Your task to perform on an android device: Open Reddit.com Image 0: 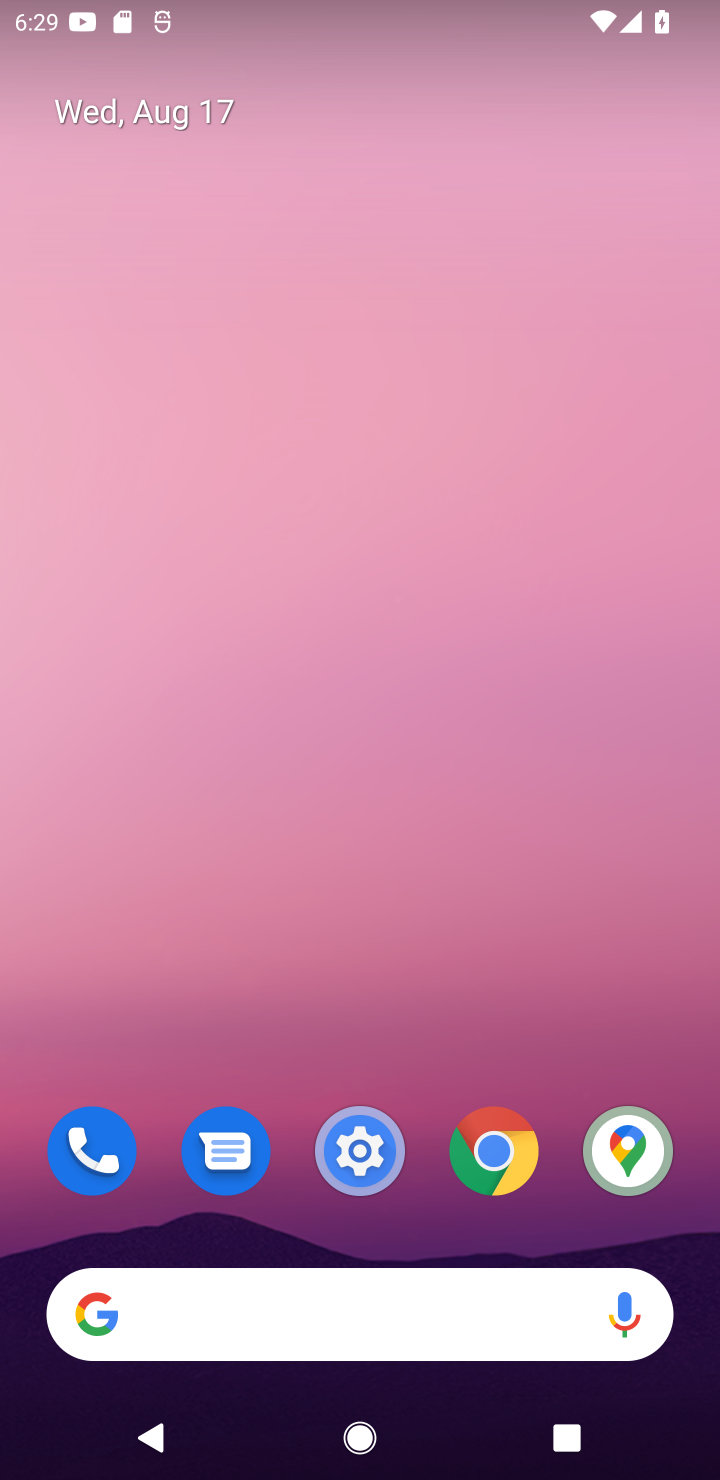
Step 0: click (469, 1174)
Your task to perform on an android device: Open Reddit.com Image 1: 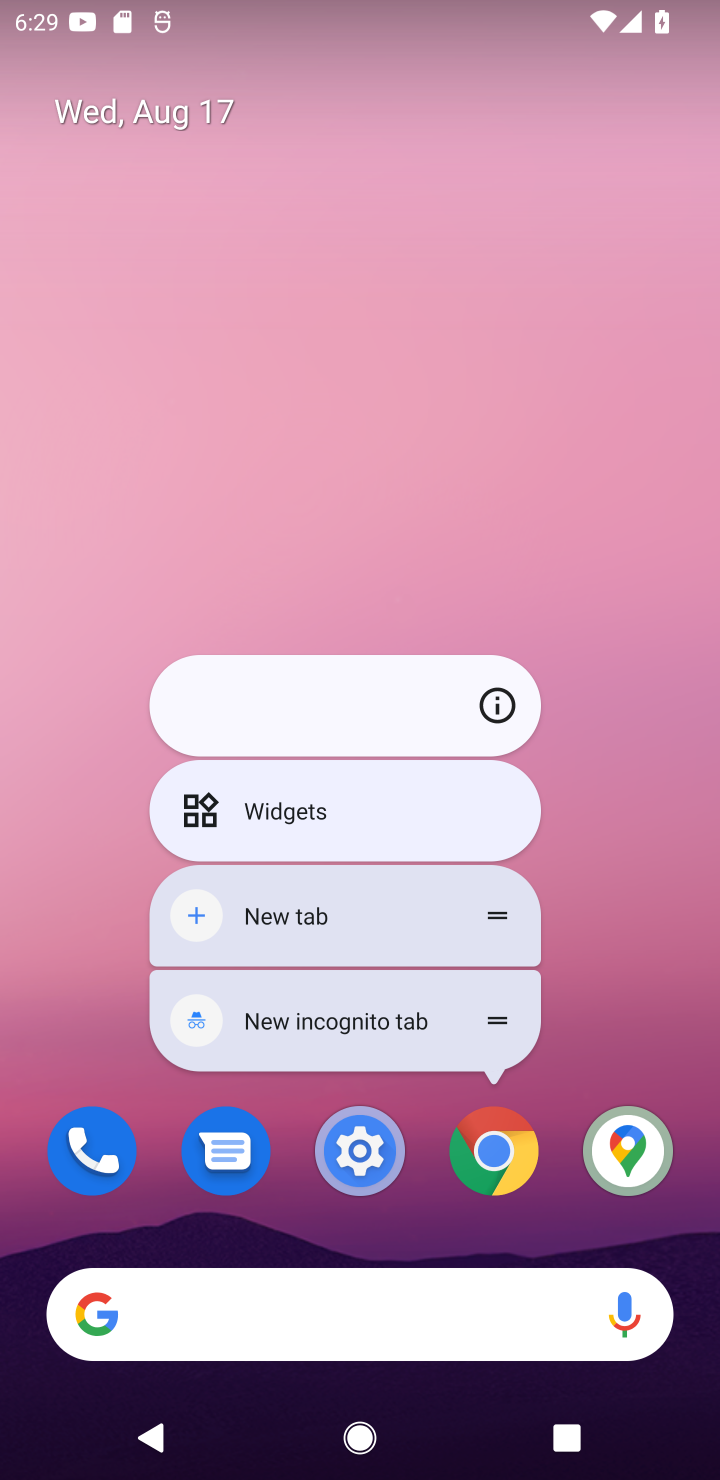
Step 1: click (469, 1174)
Your task to perform on an android device: Open Reddit.com Image 2: 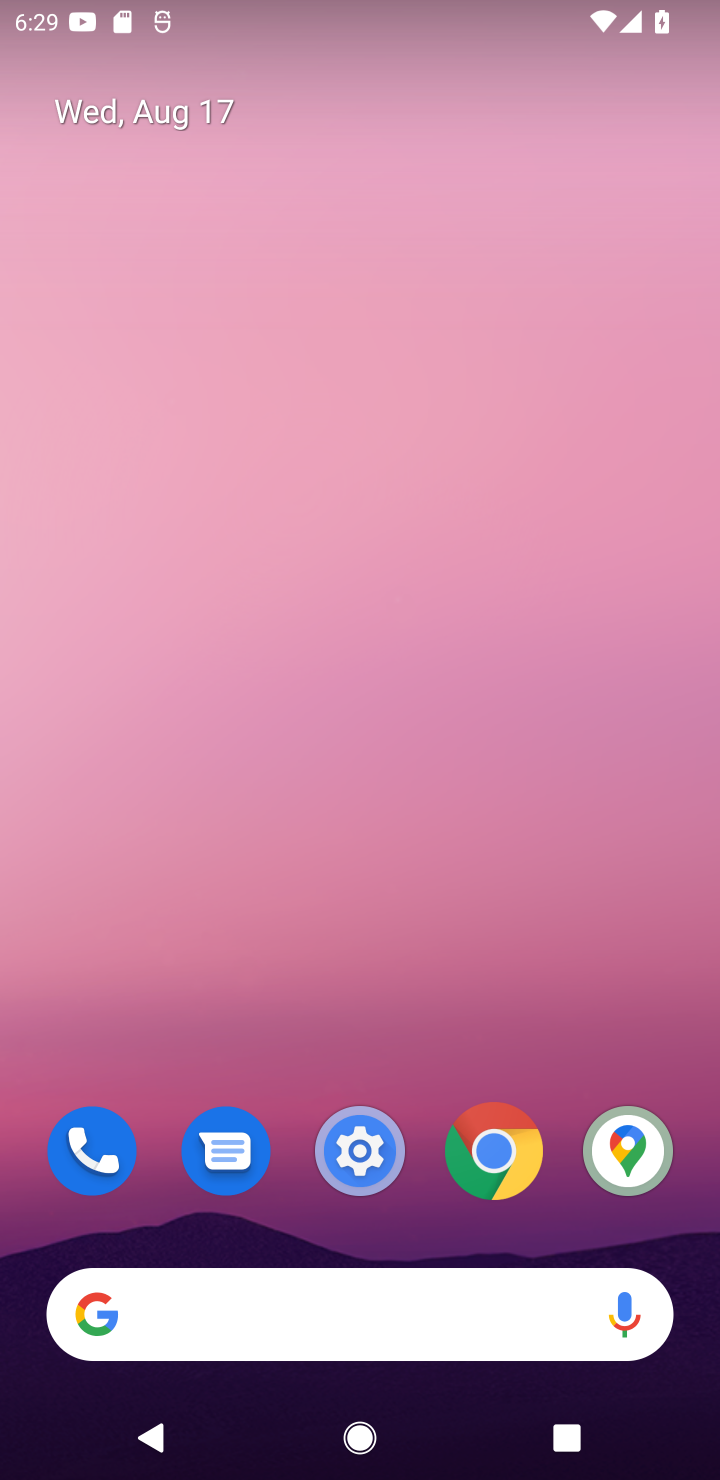
Step 2: click (477, 1173)
Your task to perform on an android device: Open Reddit.com Image 3: 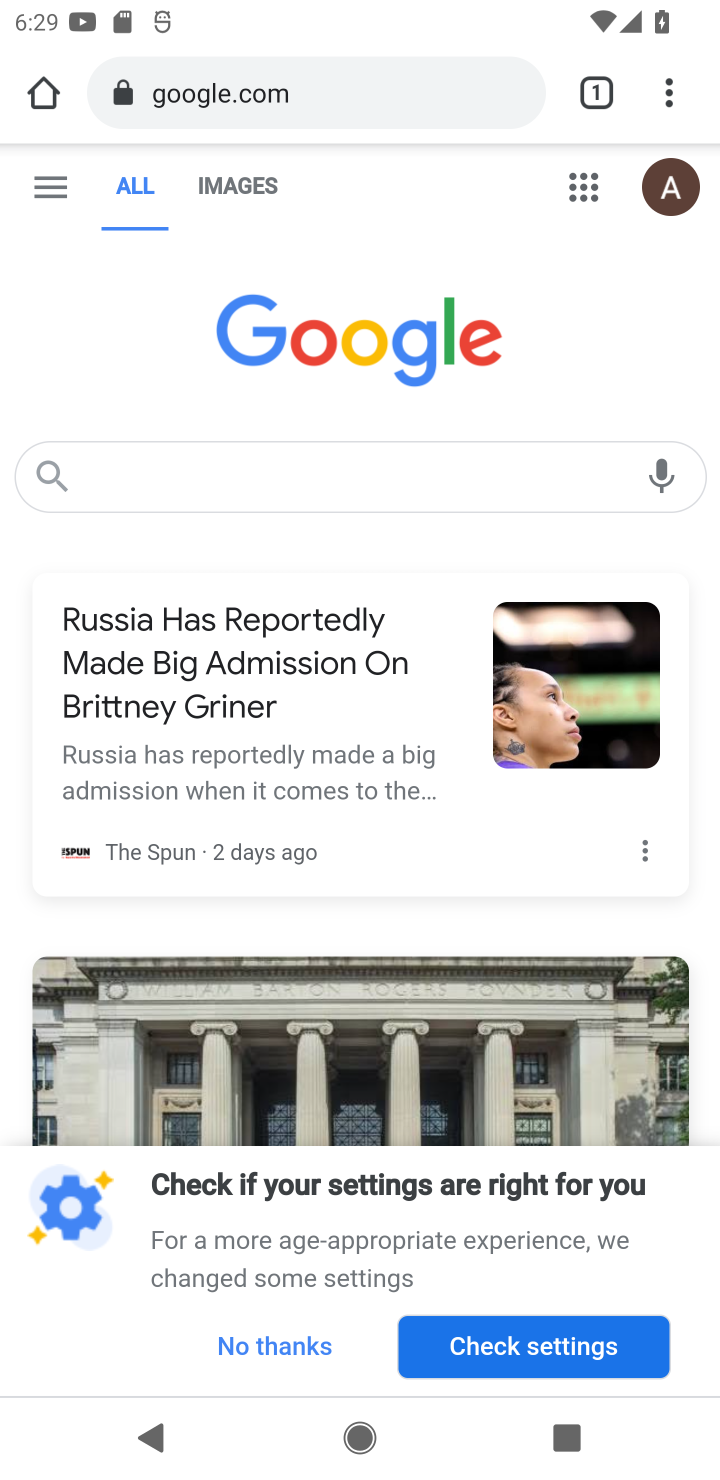
Step 3: click (296, 100)
Your task to perform on an android device: Open Reddit.com Image 4: 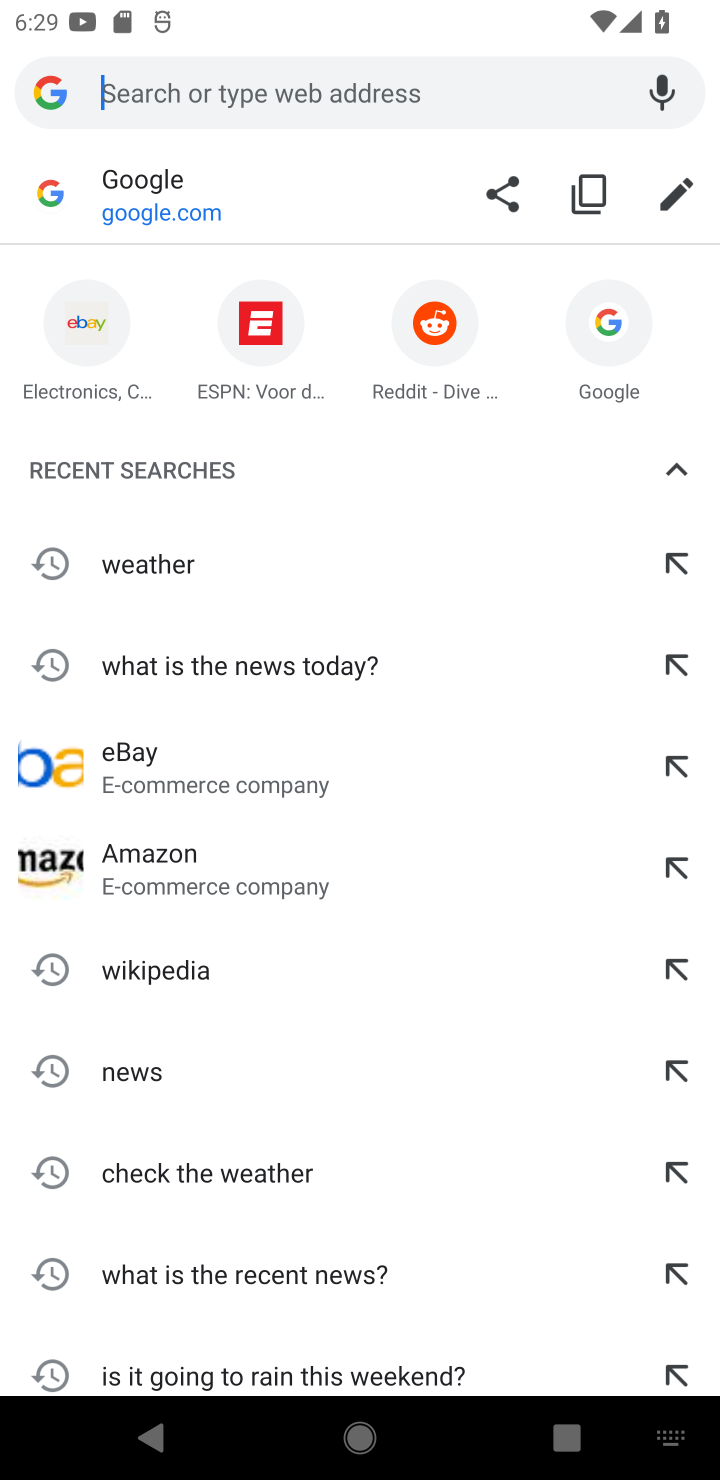
Step 4: type "reddit.com"
Your task to perform on an android device: Open Reddit.com Image 5: 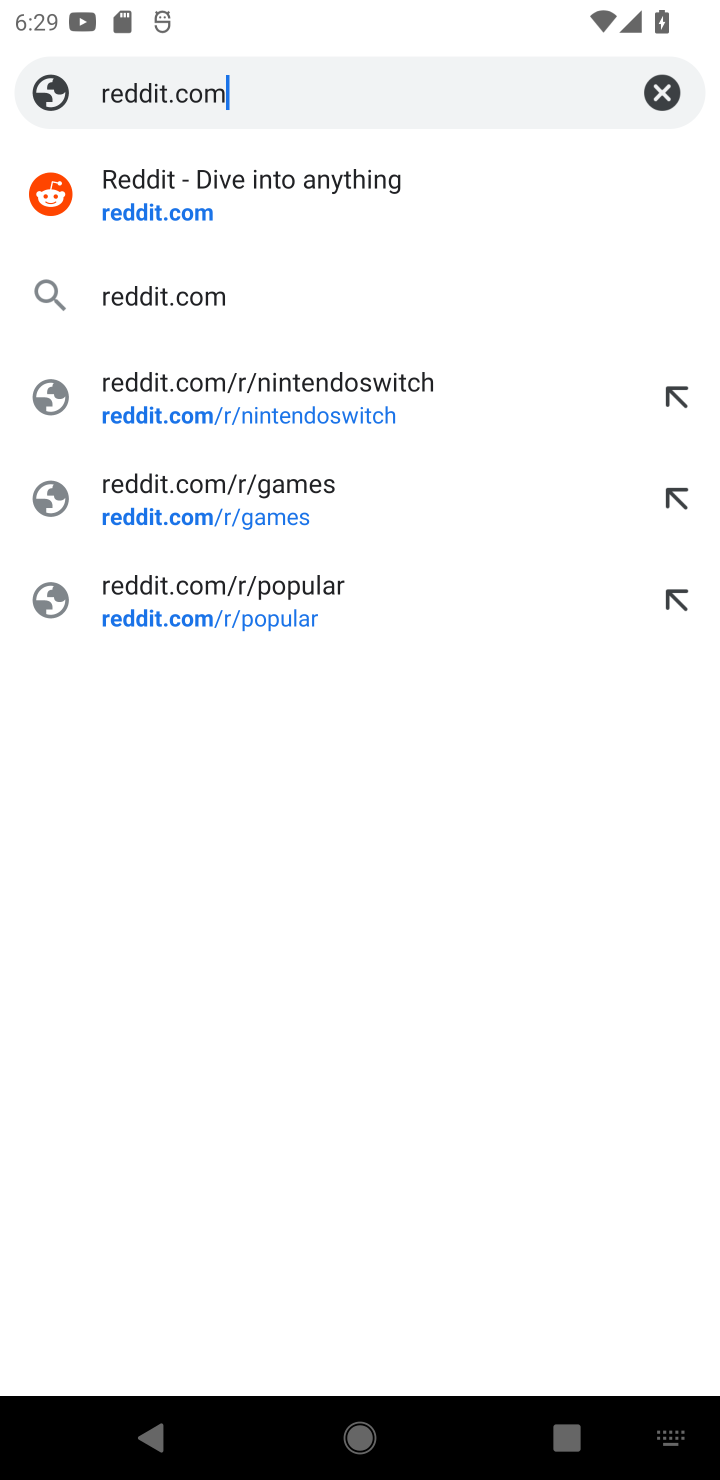
Step 5: click (135, 196)
Your task to perform on an android device: Open Reddit.com Image 6: 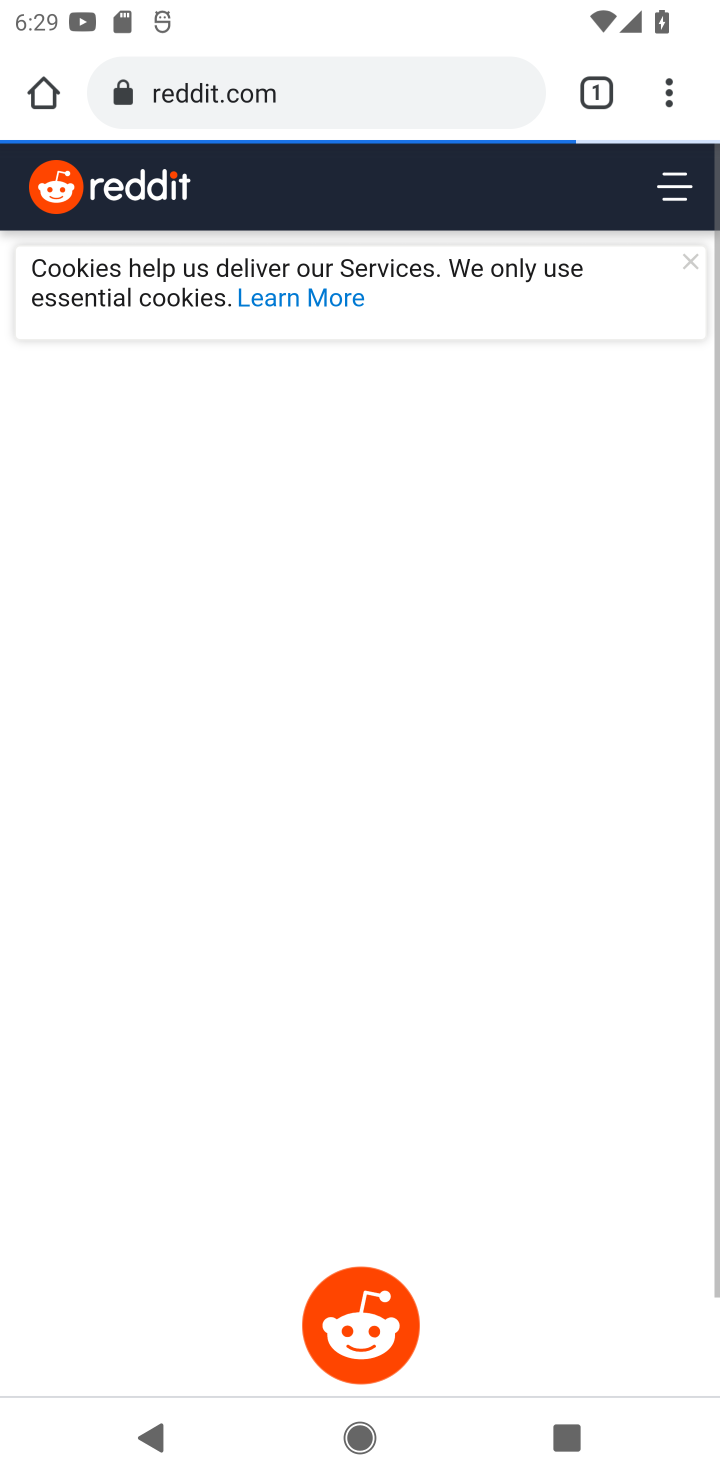
Step 6: task complete